Your task to perform on an android device: change your default location settings in chrome Image 0: 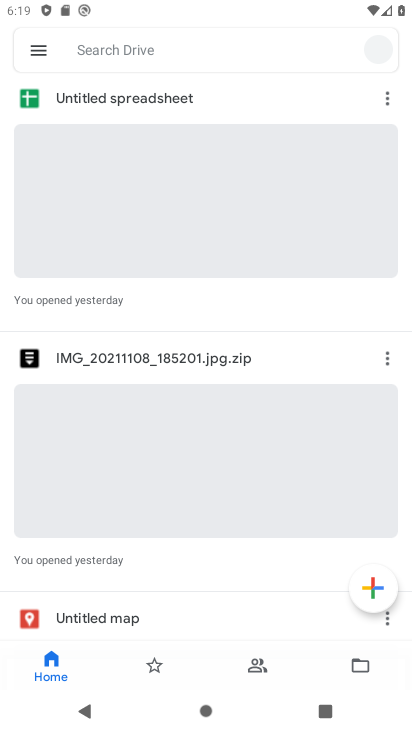
Step 0: press back button
Your task to perform on an android device: change your default location settings in chrome Image 1: 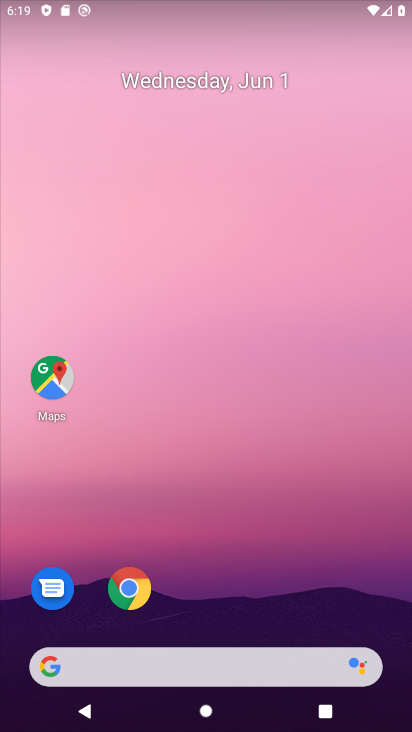
Step 1: click (125, 591)
Your task to perform on an android device: change your default location settings in chrome Image 2: 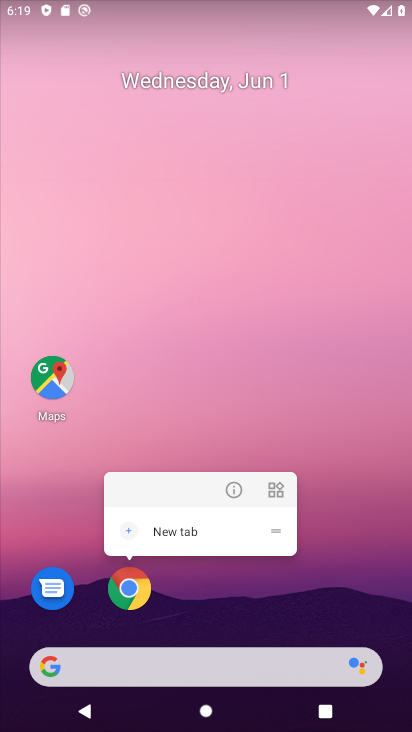
Step 2: click (130, 592)
Your task to perform on an android device: change your default location settings in chrome Image 3: 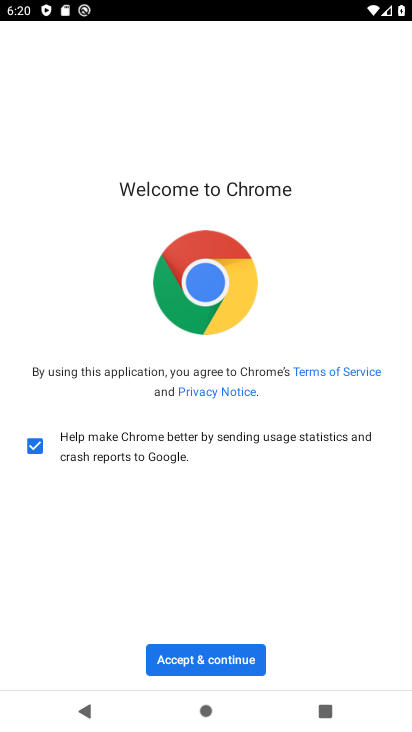
Step 3: click (197, 659)
Your task to perform on an android device: change your default location settings in chrome Image 4: 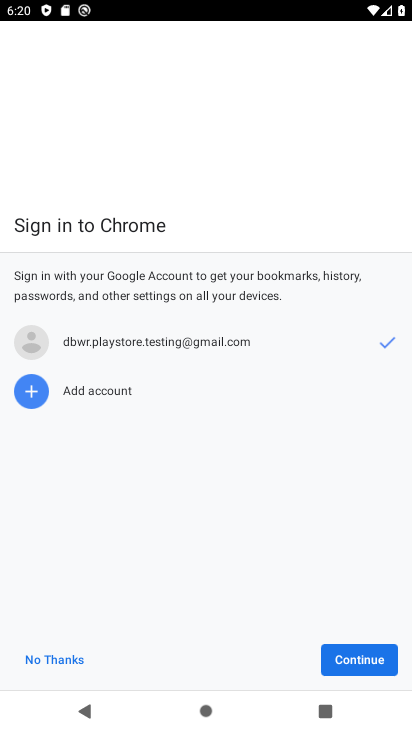
Step 4: click (327, 665)
Your task to perform on an android device: change your default location settings in chrome Image 5: 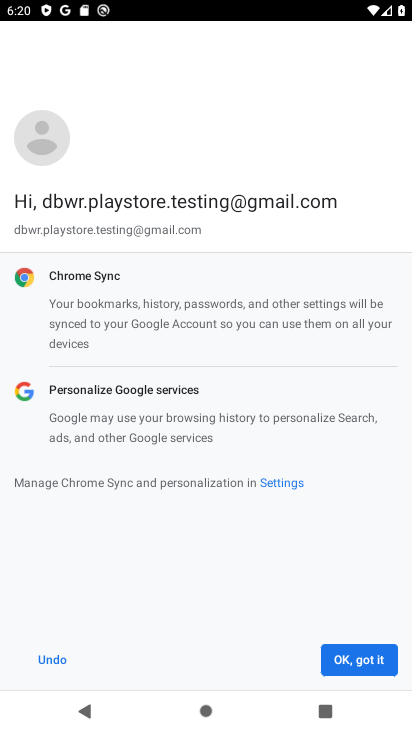
Step 5: click (362, 656)
Your task to perform on an android device: change your default location settings in chrome Image 6: 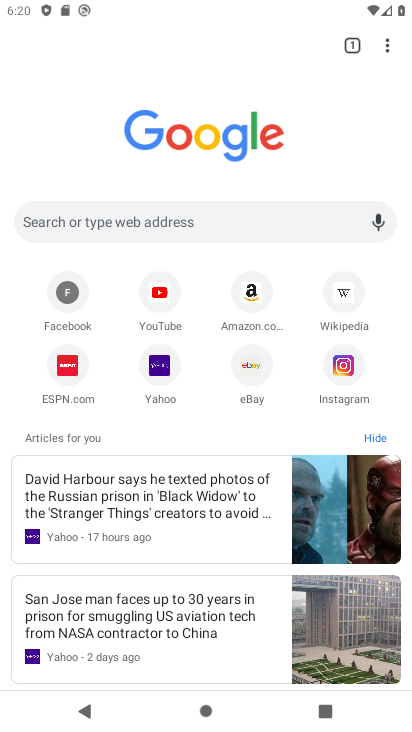
Step 6: click (386, 45)
Your task to perform on an android device: change your default location settings in chrome Image 7: 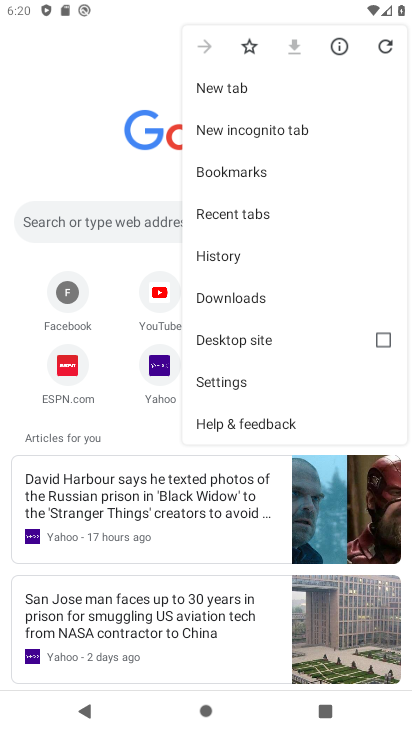
Step 7: click (226, 385)
Your task to perform on an android device: change your default location settings in chrome Image 8: 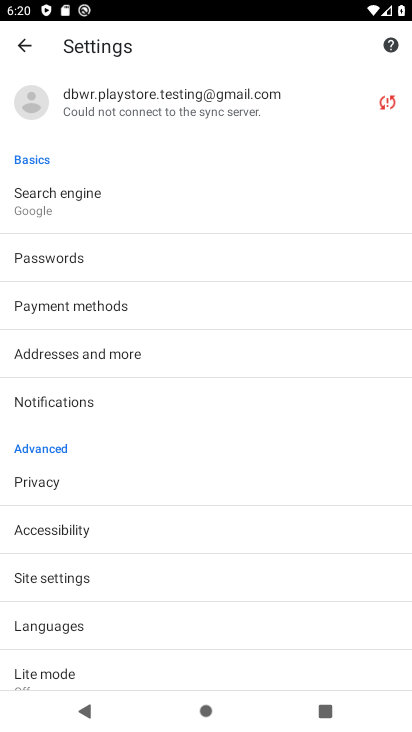
Step 8: click (53, 579)
Your task to perform on an android device: change your default location settings in chrome Image 9: 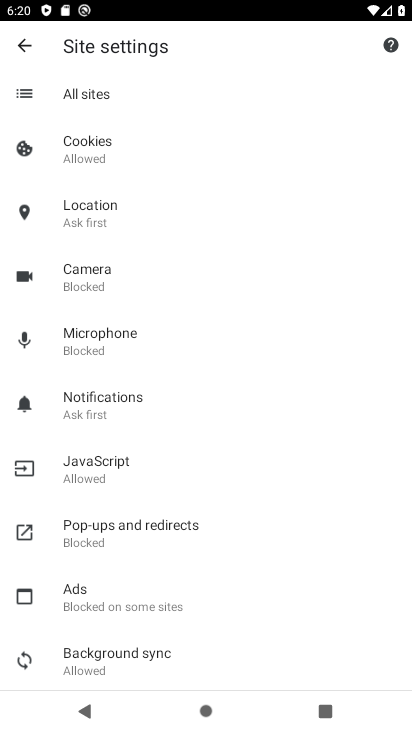
Step 9: click (107, 215)
Your task to perform on an android device: change your default location settings in chrome Image 10: 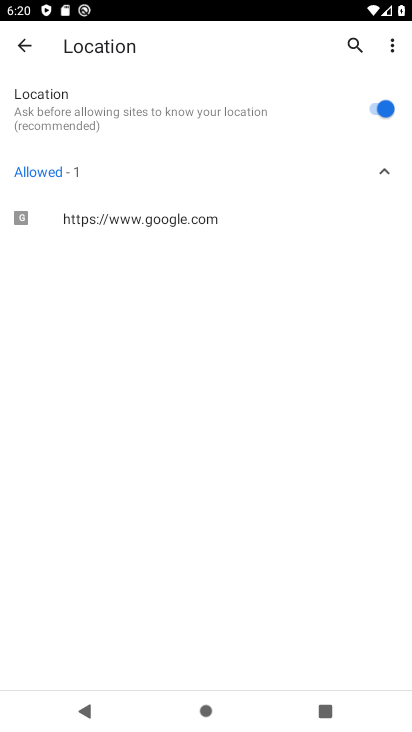
Step 10: click (374, 110)
Your task to perform on an android device: change your default location settings in chrome Image 11: 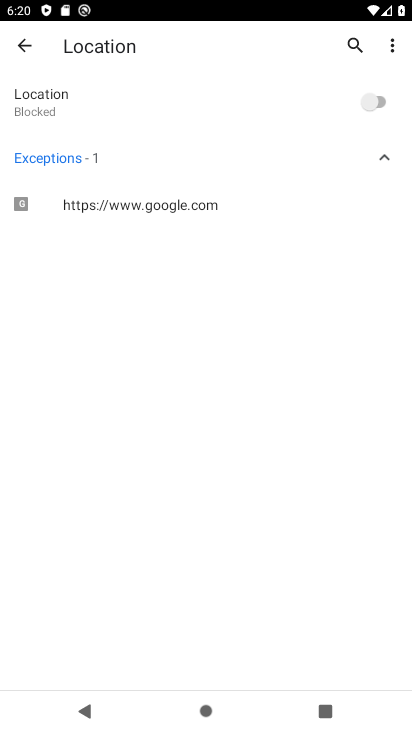
Step 11: task complete